Your task to perform on an android device: delete a single message in the gmail app Image 0: 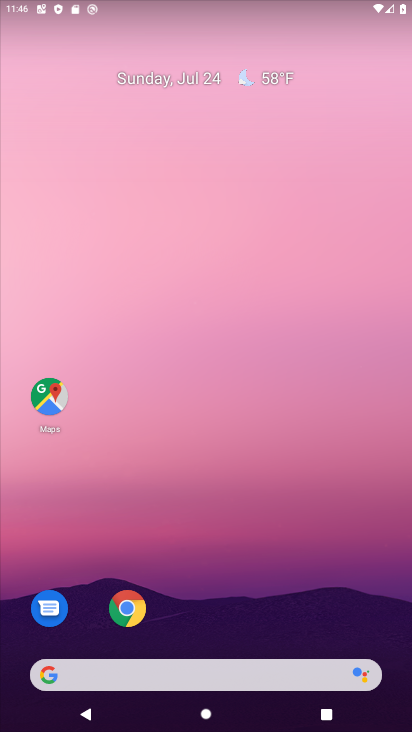
Step 0: drag from (193, 661) to (225, 25)
Your task to perform on an android device: delete a single message in the gmail app Image 1: 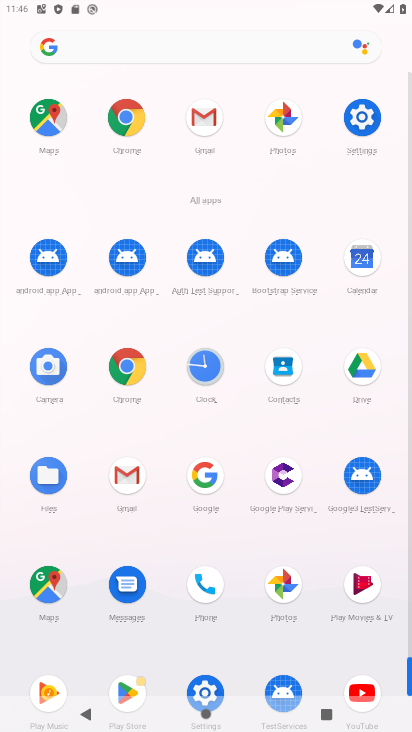
Step 1: click (144, 484)
Your task to perform on an android device: delete a single message in the gmail app Image 2: 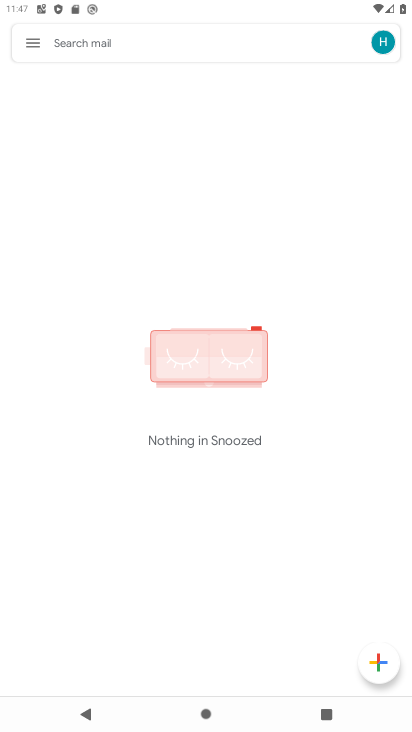
Step 2: click (30, 41)
Your task to perform on an android device: delete a single message in the gmail app Image 3: 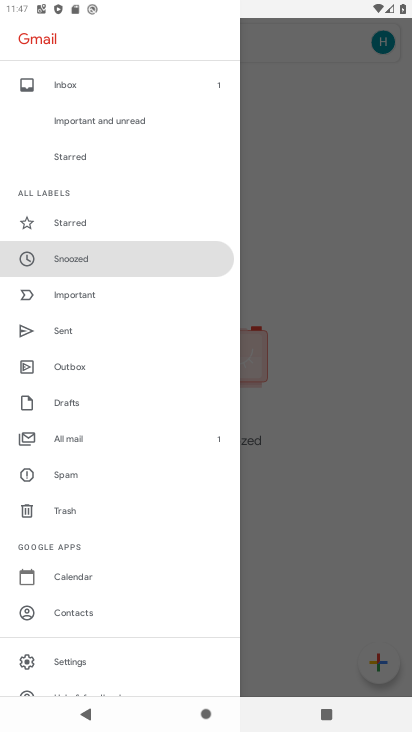
Step 3: click (81, 441)
Your task to perform on an android device: delete a single message in the gmail app Image 4: 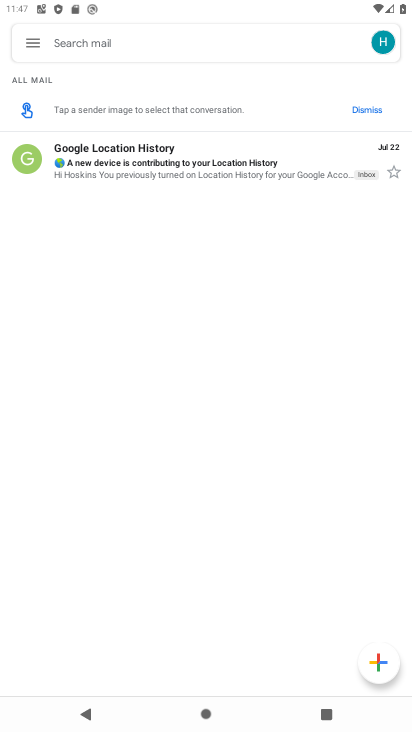
Step 4: click (26, 158)
Your task to perform on an android device: delete a single message in the gmail app Image 5: 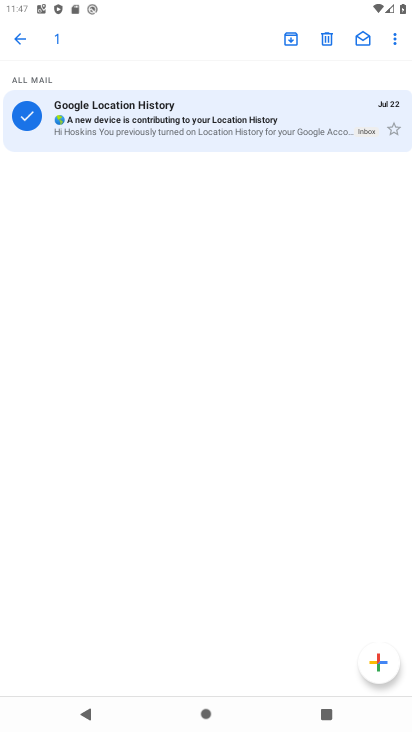
Step 5: click (324, 37)
Your task to perform on an android device: delete a single message in the gmail app Image 6: 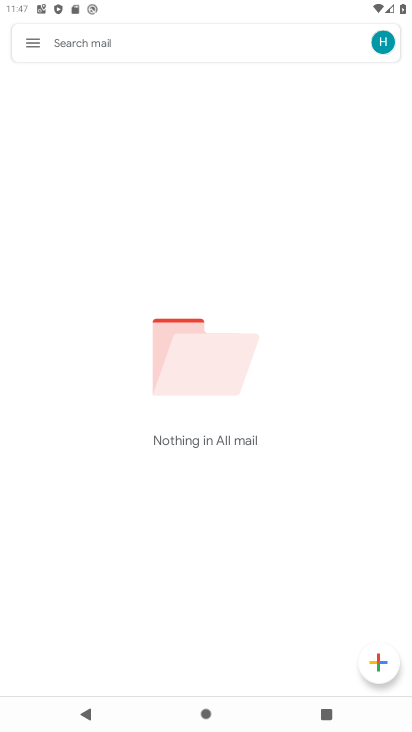
Step 6: task complete